Your task to perform on an android device: turn on the 12-hour format for clock Image 0: 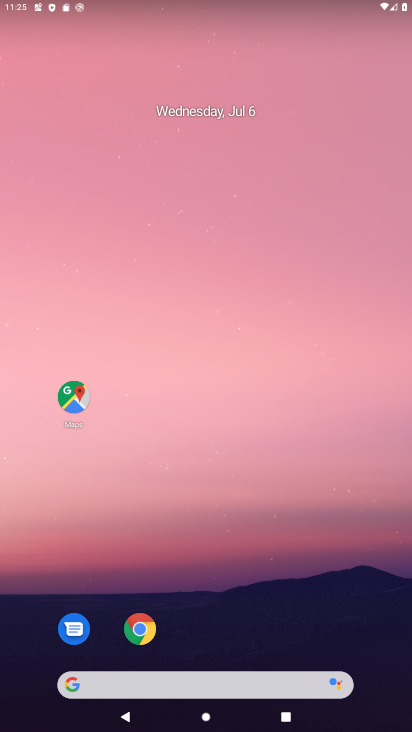
Step 0: drag from (230, 621) to (268, 79)
Your task to perform on an android device: turn on the 12-hour format for clock Image 1: 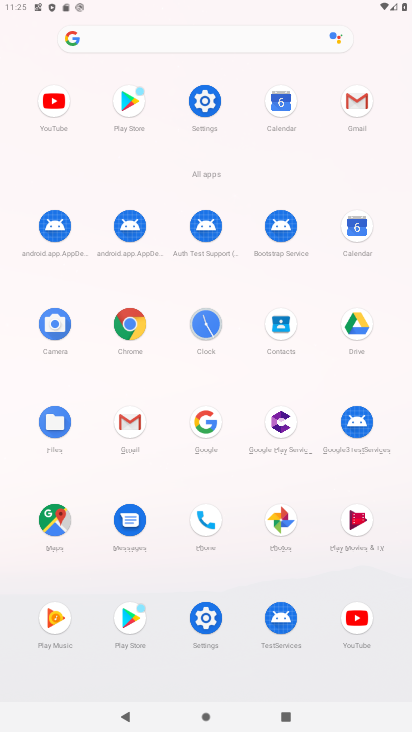
Step 1: click (208, 328)
Your task to perform on an android device: turn on the 12-hour format for clock Image 2: 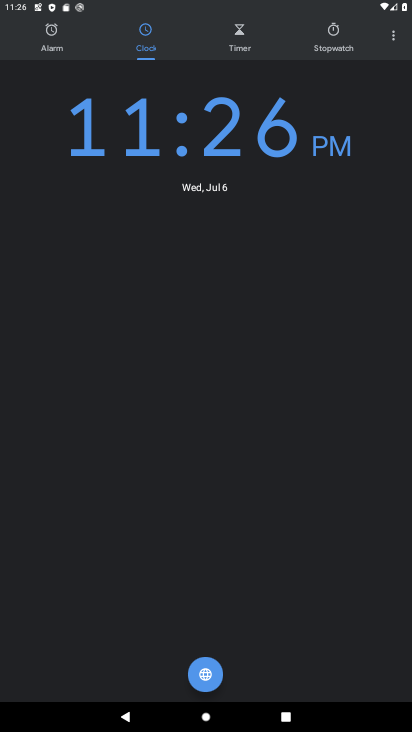
Step 2: click (397, 44)
Your task to perform on an android device: turn on the 12-hour format for clock Image 3: 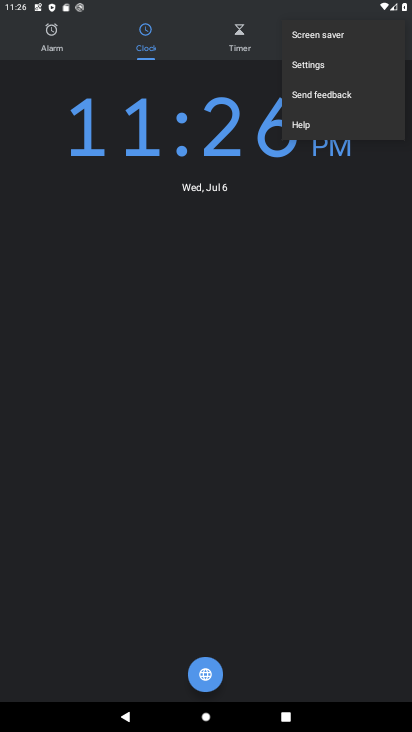
Step 3: click (319, 65)
Your task to perform on an android device: turn on the 12-hour format for clock Image 4: 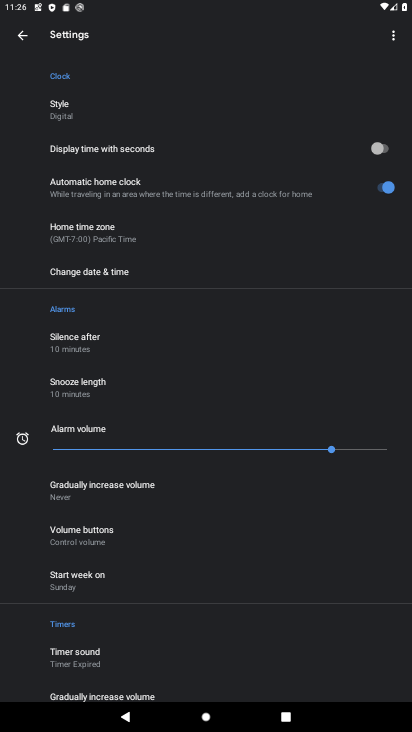
Step 4: click (108, 267)
Your task to perform on an android device: turn on the 12-hour format for clock Image 5: 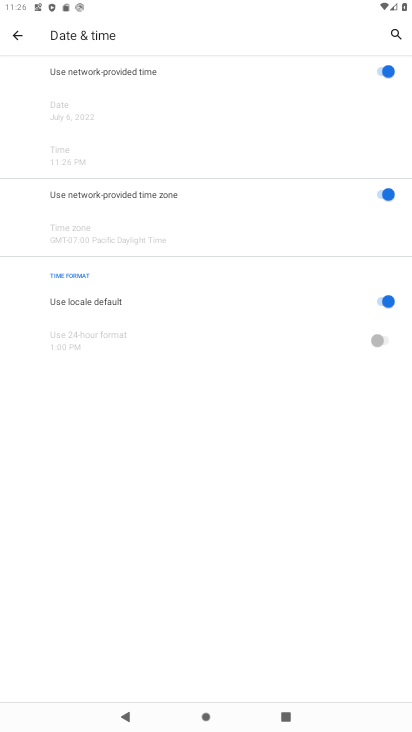
Step 5: task complete